Your task to perform on an android device: Open Maps and search for coffee Image 0: 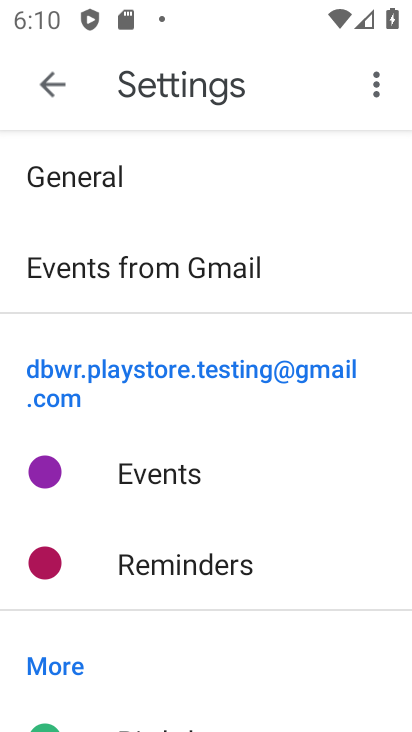
Step 0: press home button
Your task to perform on an android device: Open Maps and search for coffee Image 1: 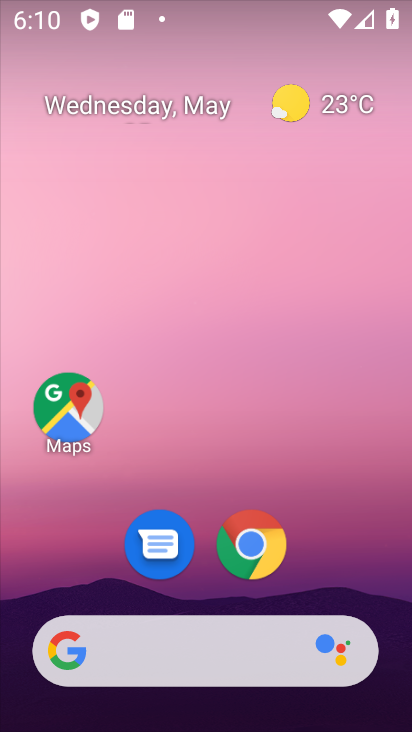
Step 1: click (56, 410)
Your task to perform on an android device: Open Maps and search for coffee Image 2: 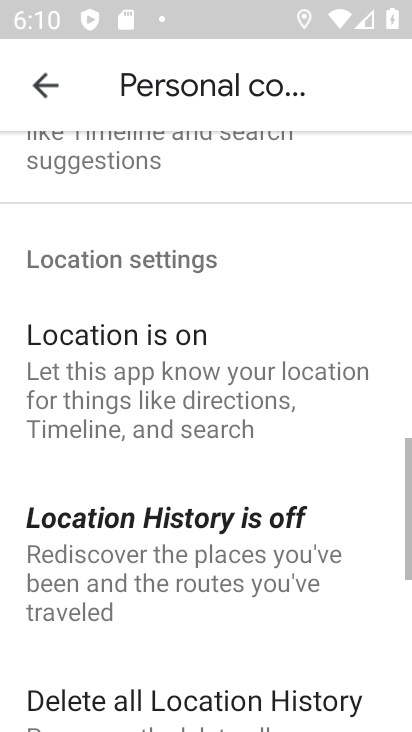
Step 2: click (43, 91)
Your task to perform on an android device: Open Maps and search for coffee Image 3: 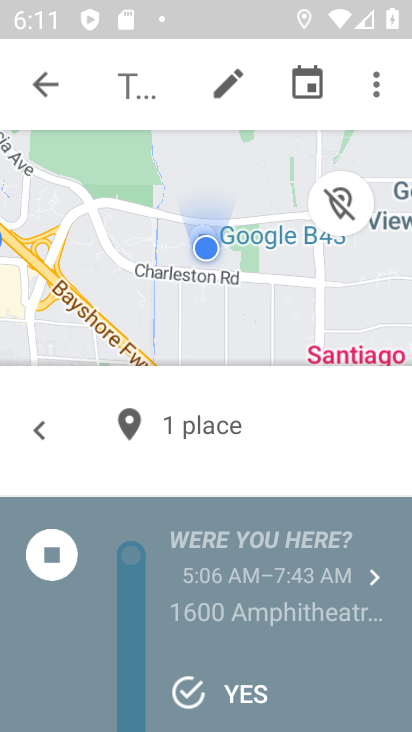
Step 3: click (43, 91)
Your task to perform on an android device: Open Maps and search for coffee Image 4: 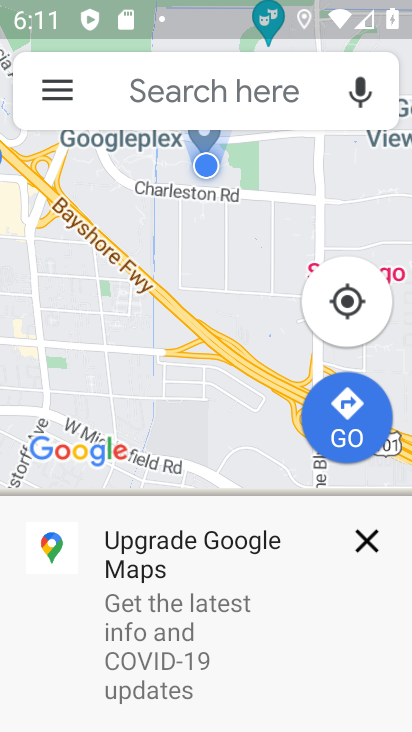
Step 4: click (117, 84)
Your task to perform on an android device: Open Maps and search for coffee Image 5: 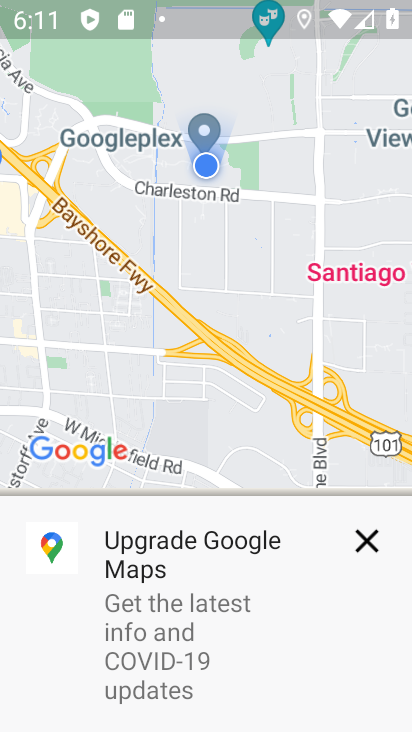
Step 5: click (368, 536)
Your task to perform on an android device: Open Maps and search for coffee Image 6: 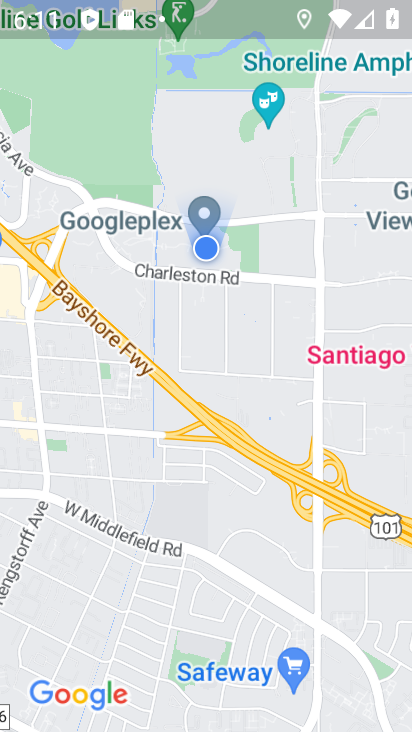
Step 6: click (140, 113)
Your task to perform on an android device: Open Maps and search for coffee Image 7: 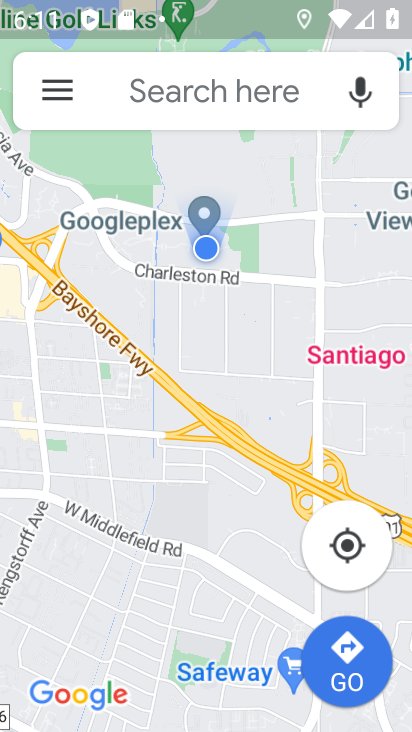
Step 7: click (143, 101)
Your task to perform on an android device: Open Maps and search for coffee Image 8: 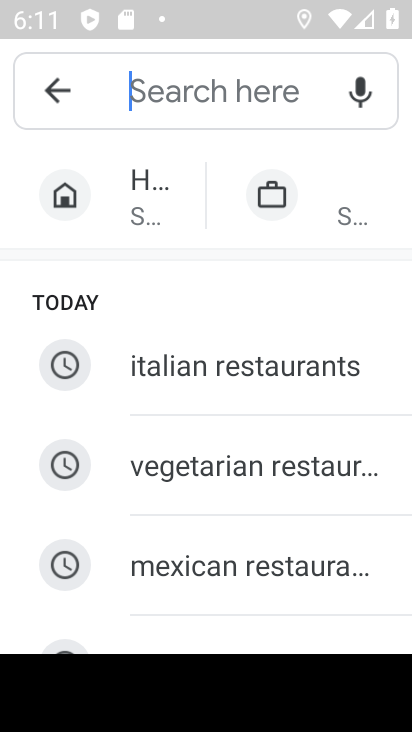
Step 8: type "coffee"
Your task to perform on an android device: Open Maps and search for coffee Image 9: 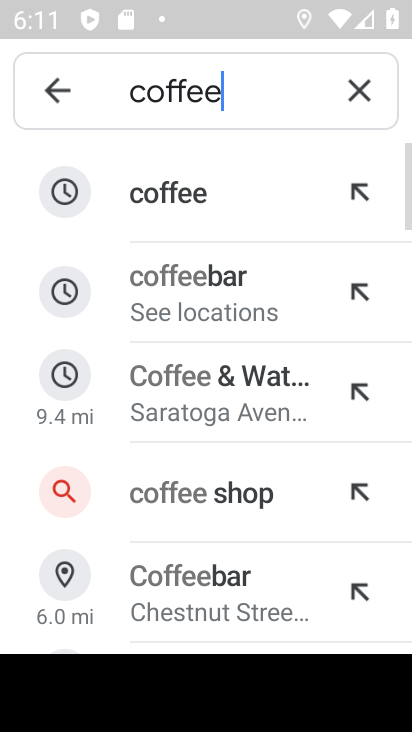
Step 9: click (182, 192)
Your task to perform on an android device: Open Maps and search for coffee Image 10: 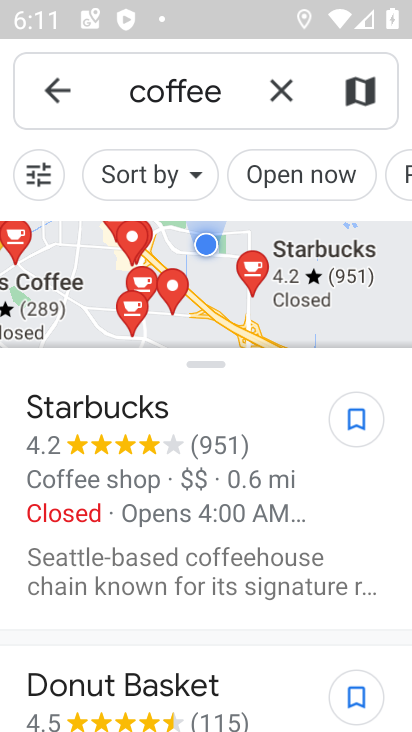
Step 10: task complete